Your task to perform on an android device: toggle translation in the chrome app Image 0: 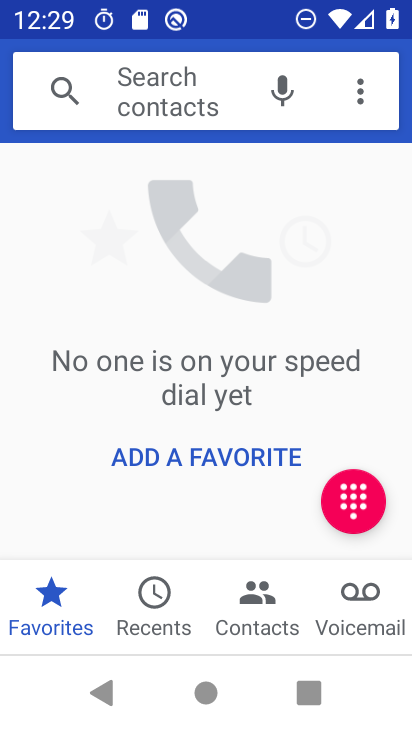
Step 0: press home button
Your task to perform on an android device: toggle translation in the chrome app Image 1: 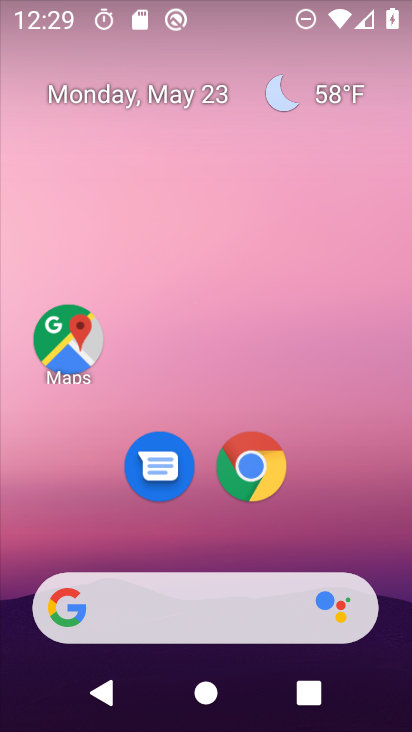
Step 1: click (247, 471)
Your task to perform on an android device: toggle translation in the chrome app Image 2: 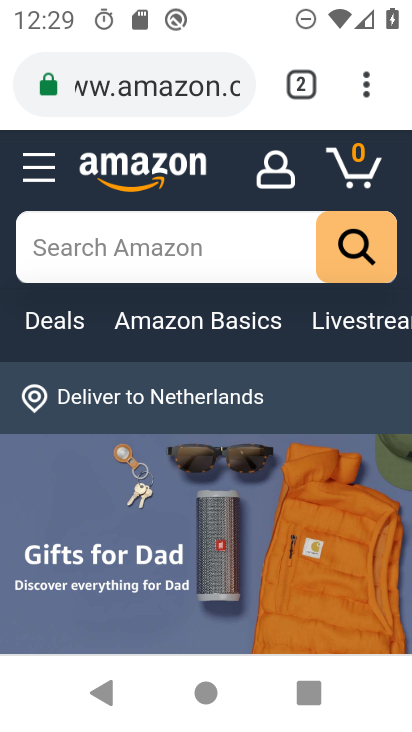
Step 2: click (358, 91)
Your task to perform on an android device: toggle translation in the chrome app Image 3: 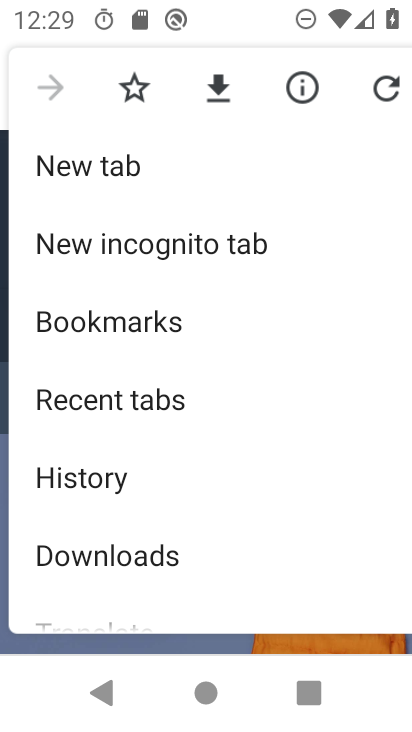
Step 3: drag from (154, 551) to (154, 148)
Your task to perform on an android device: toggle translation in the chrome app Image 4: 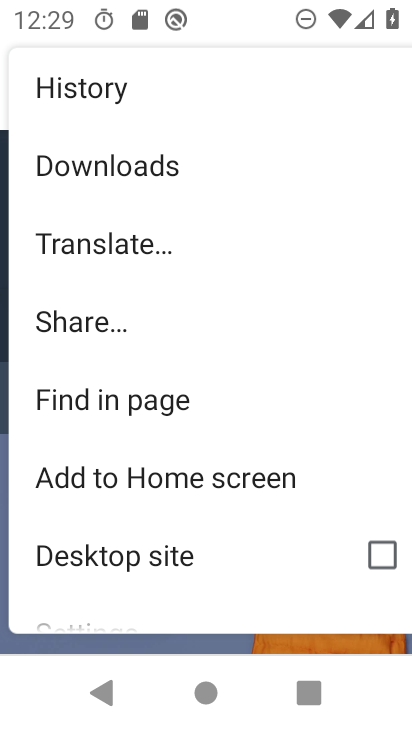
Step 4: drag from (151, 542) to (158, 308)
Your task to perform on an android device: toggle translation in the chrome app Image 5: 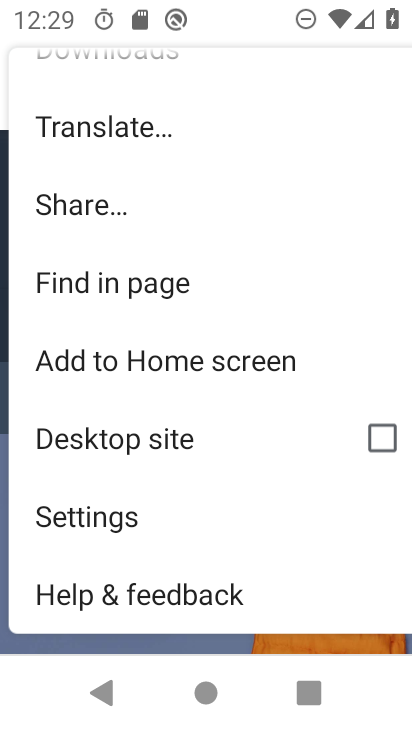
Step 5: click (127, 521)
Your task to perform on an android device: toggle translation in the chrome app Image 6: 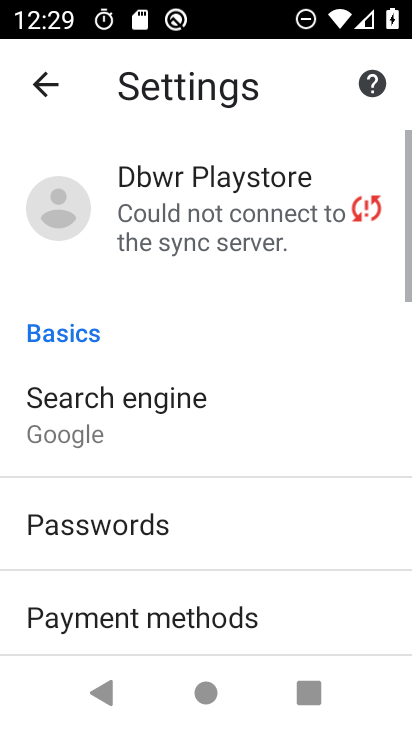
Step 6: drag from (256, 561) to (247, 97)
Your task to perform on an android device: toggle translation in the chrome app Image 7: 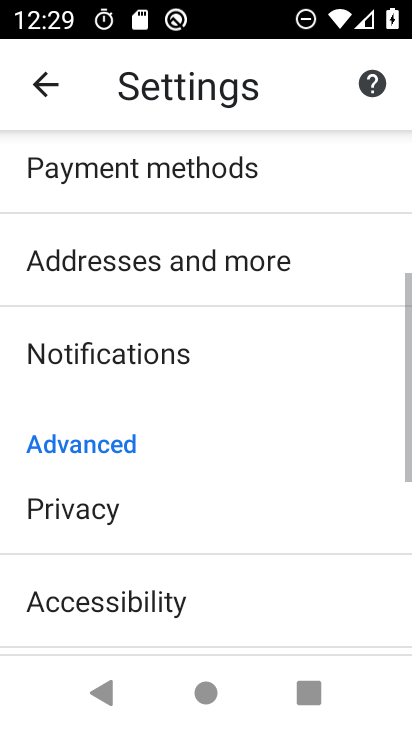
Step 7: drag from (231, 552) to (218, 136)
Your task to perform on an android device: toggle translation in the chrome app Image 8: 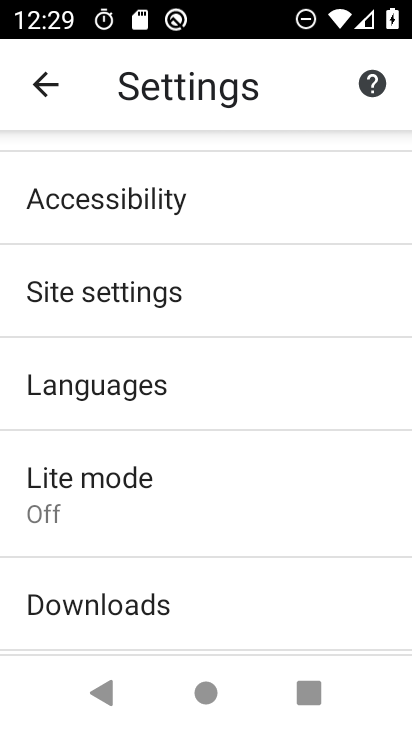
Step 8: click (85, 390)
Your task to perform on an android device: toggle translation in the chrome app Image 9: 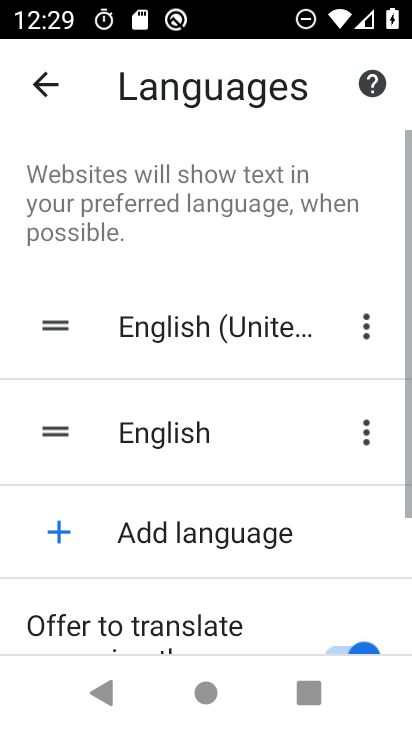
Step 9: drag from (146, 558) to (193, 155)
Your task to perform on an android device: toggle translation in the chrome app Image 10: 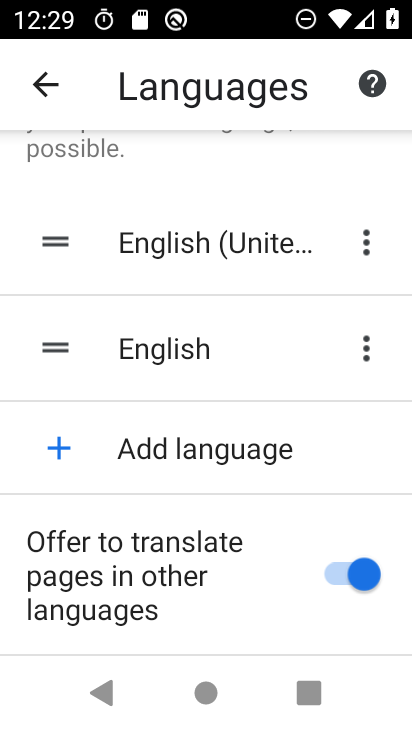
Step 10: click (336, 586)
Your task to perform on an android device: toggle translation in the chrome app Image 11: 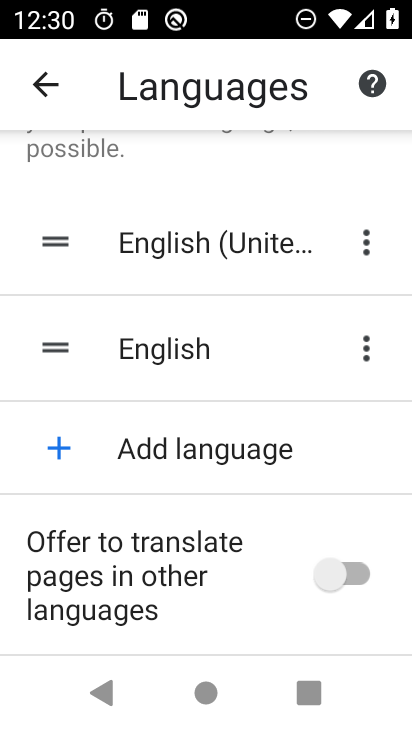
Step 11: task complete